Your task to perform on an android device: Go to internet settings Image 0: 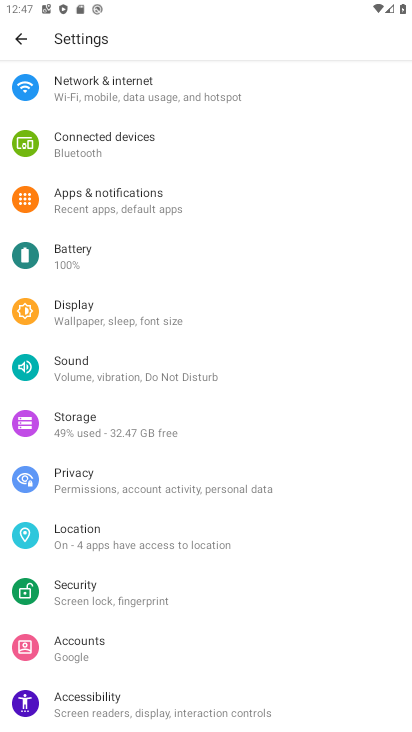
Step 0: click (136, 89)
Your task to perform on an android device: Go to internet settings Image 1: 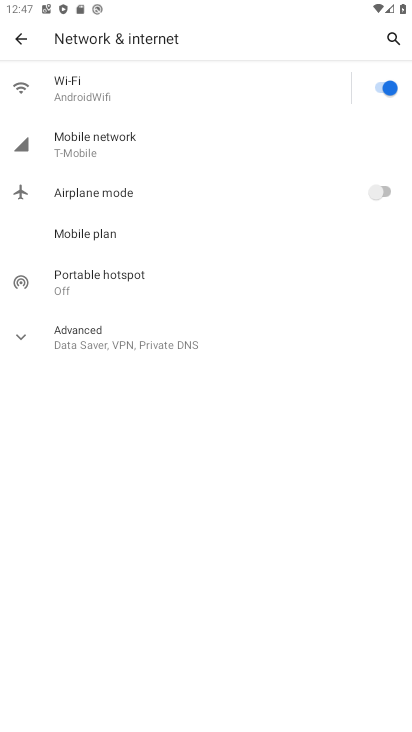
Step 1: click (176, 150)
Your task to perform on an android device: Go to internet settings Image 2: 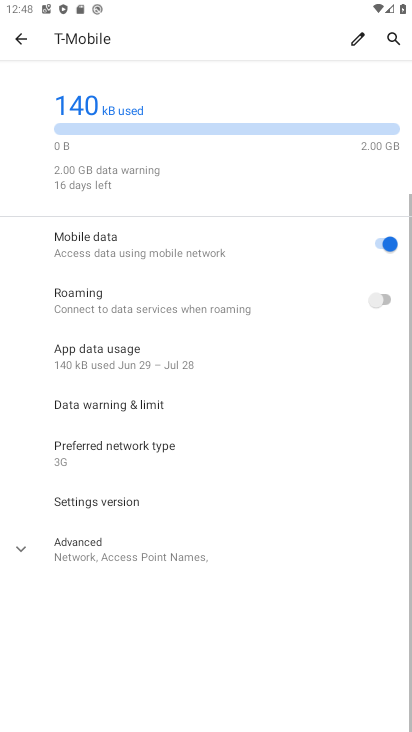
Step 2: task complete